Your task to perform on an android device: toggle show notifications on the lock screen Image 0: 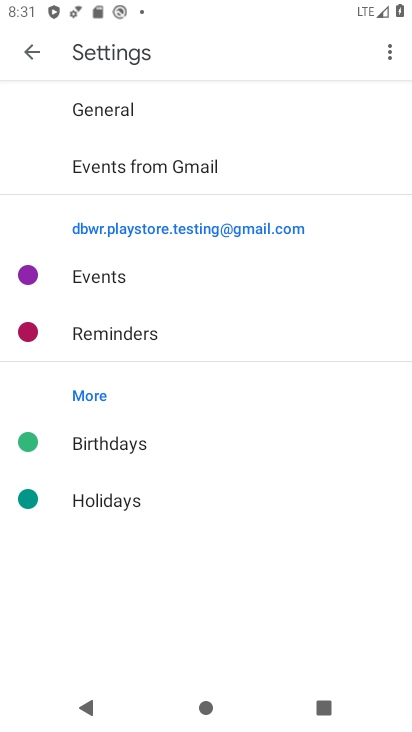
Step 0: press back button
Your task to perform on an android device: toggle show notifications on the lock screen Image 1: 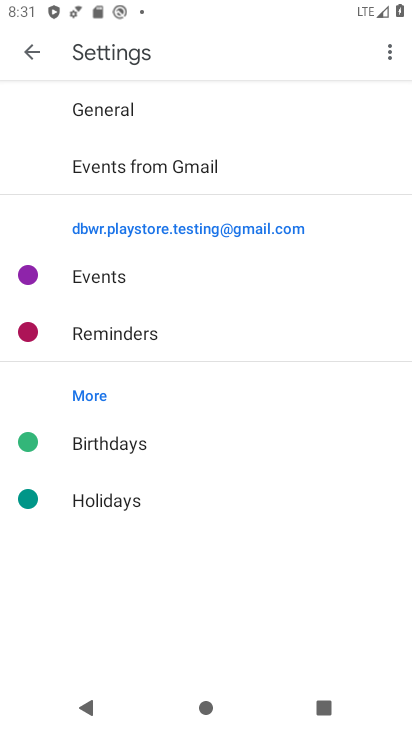
Step 1: press back button
Your task to perform on an android device: toggle show notifications on the lock screen Image 2: 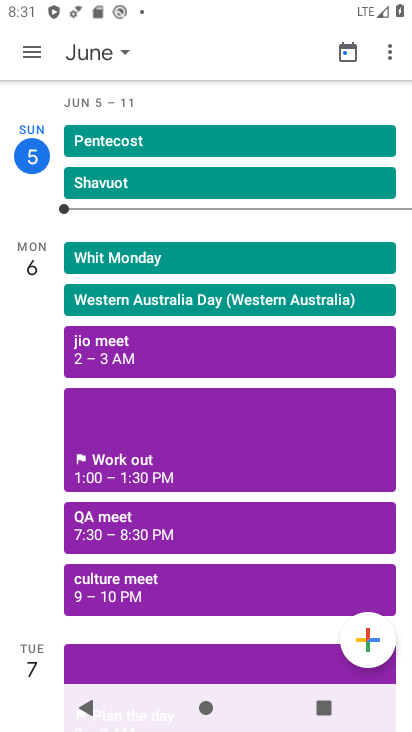
Step 2: press back button
Your task to perform on an android device: toggle show notifications on the lock screen Image 3: 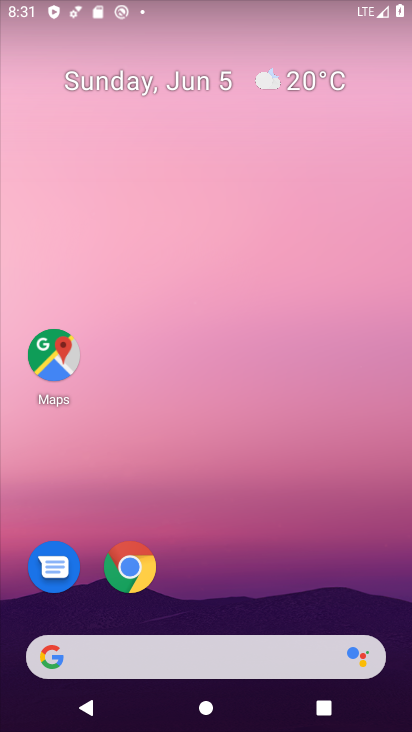
Step 3: drag from (234, 526) to (321, 78)
Your task to perform on an android device: toggle show notifications on the lock screen Image 4: 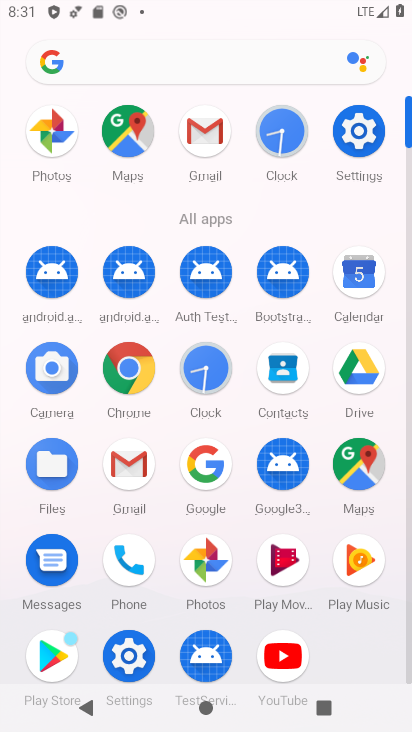
Step 4: click (360, 134)
Your task to perform on an android device: toggle show notifications on the lock screen Image 5: 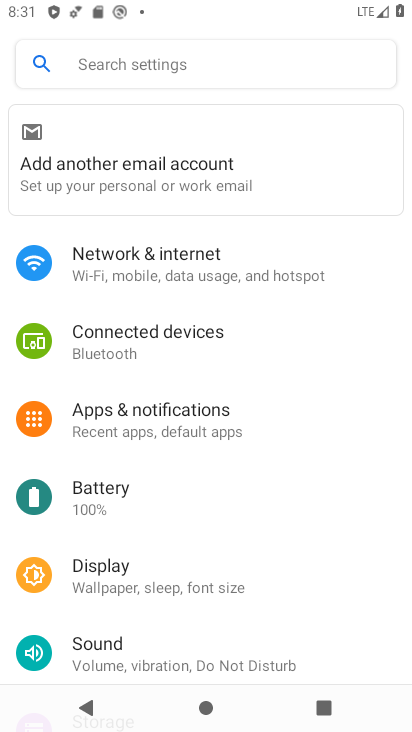
Step 5: click (148, 421)
Your task to perform on an android device: toggle show notifications on the lock screen Image 6: 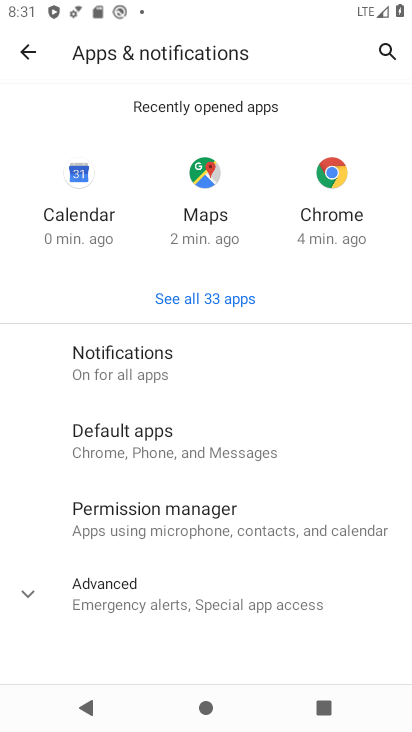
Step 6: click (150, 354)
Your task to perform on an android device: toggle show notifications on the lock screen Image 7: 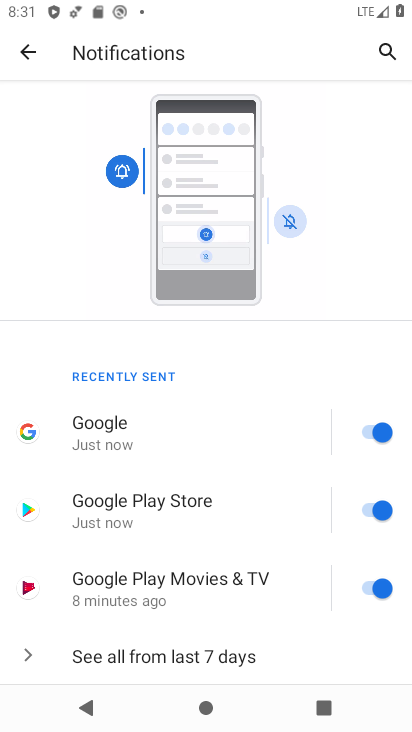
Step 7: drag from (205, 414) to (221, 194)
Your task to perform on an android device: toggle show notifications on the lock screen Image 8: 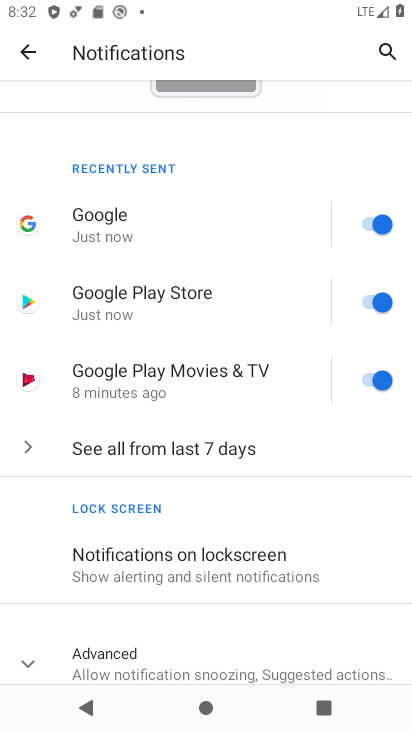
Step 8: click (167, 562)
Your task to perform on an android device: toggle show notifications on the lock screen Image 9: 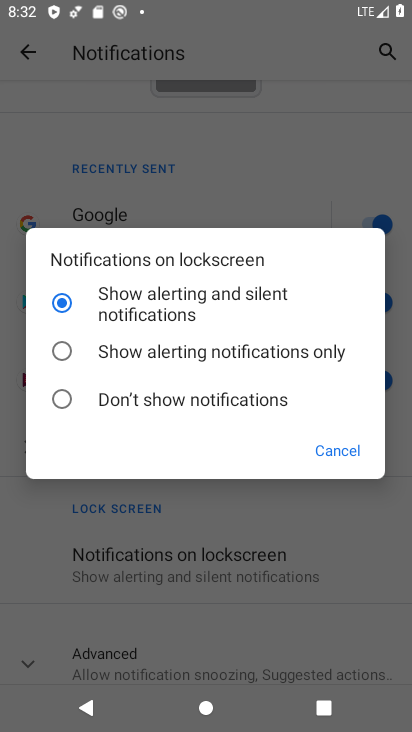
Step 9: click (67, 403)
Your task to perform on an android device: toggle show notifications on the lock screen Image 10: 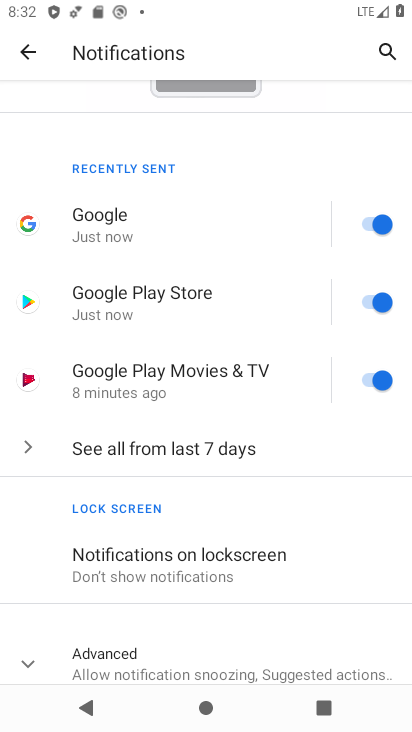
Step 10: task complete